Your task to perform on an android device: Google the capital of Paraguay Image 0: 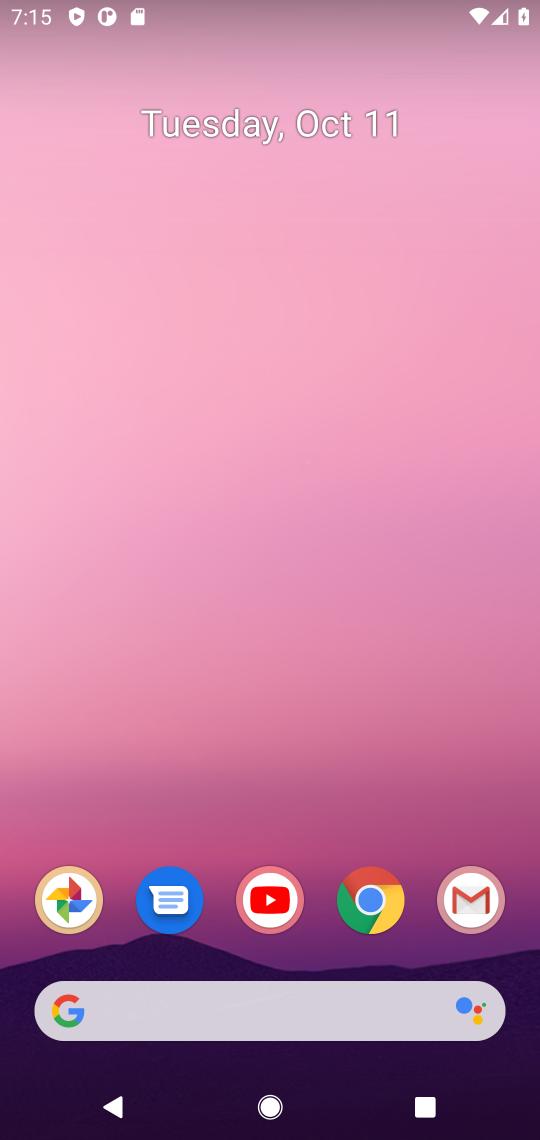
Step 0: click (374, 895)
Your task to perform on an android device: Google the capital of Paraguay Image 1: 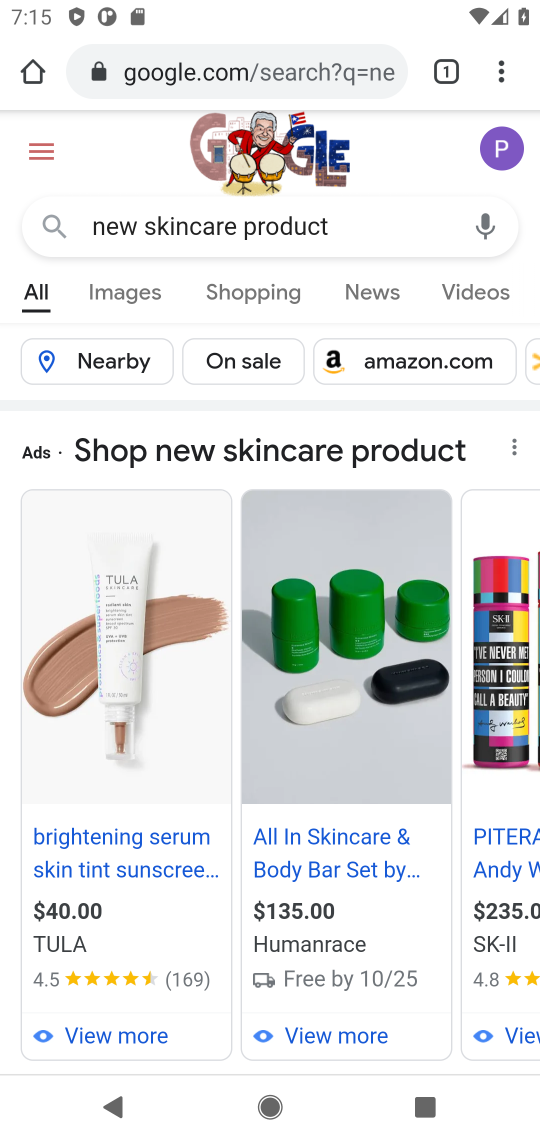
Step 1: click (264, 85)
Your task to perform on an android device: Google the capital of Paraguay Image 2: 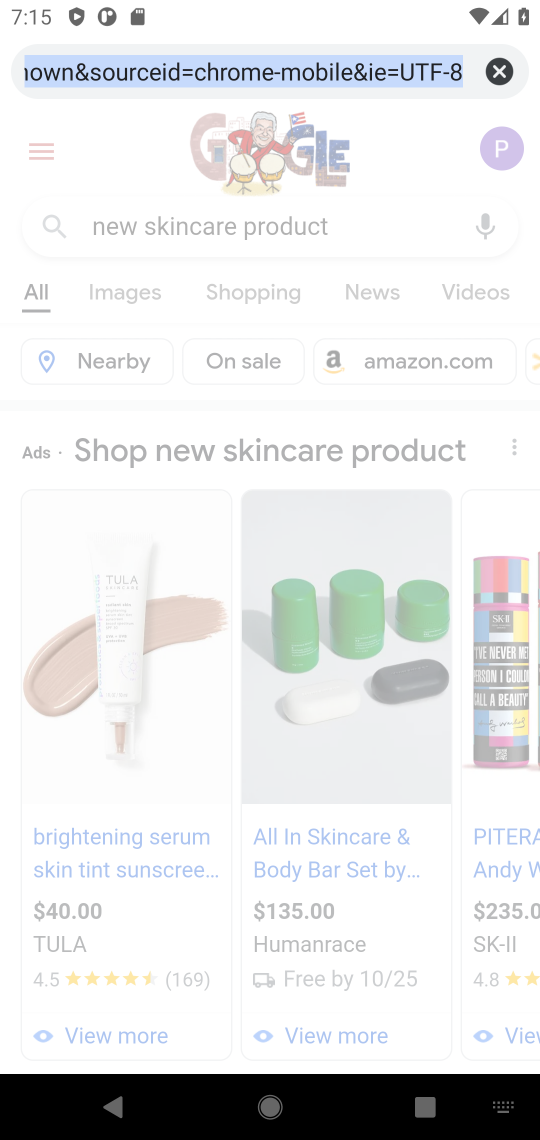
Step 2: type "capital of Paraguay"
Your task to perform on an android device: Google the capital of Paraguay Image 3: 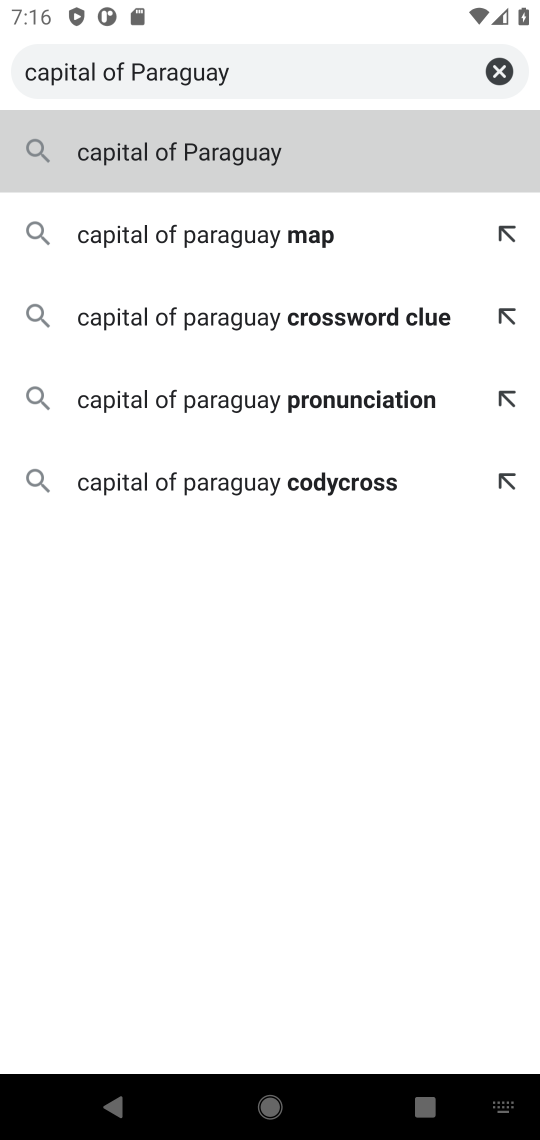
Step 3: click (248, 163)
Your task to perform on an android device: Google the capital of Paraguay Image 4: 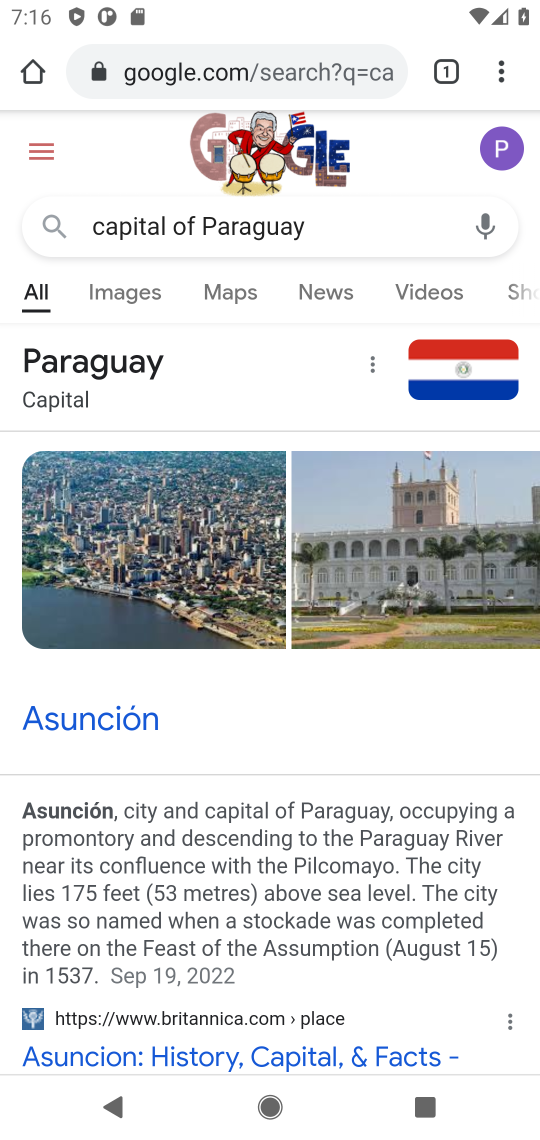
Step 4: task complete